Your task to perform on an android device: toggle wifi Image 0: 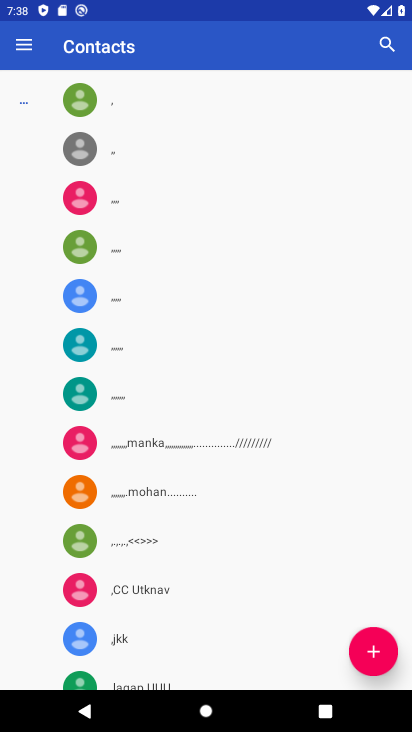
Step 0: press home button
Your task to perform on an android device: toggle wifi Image 1: 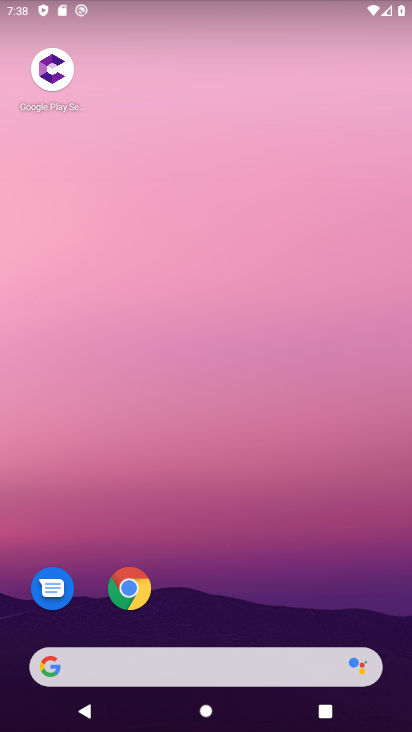
Step 1: drag from (311, 496) to (201, 138)
Your task to perform on an android device: toggle wifi Image 2: 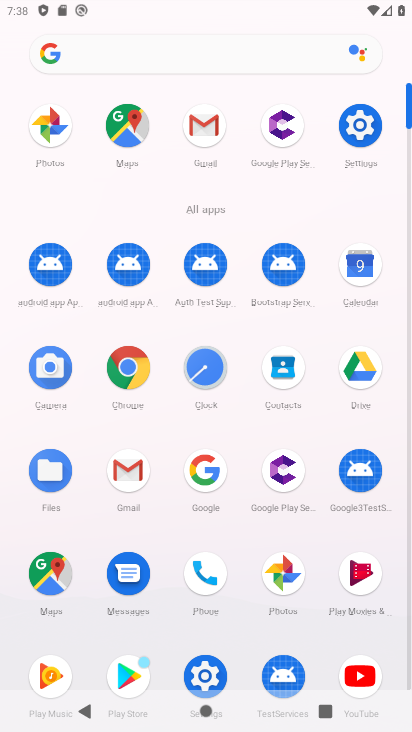
Step 2: click (345, 139)
Your task to perform on an android device: toggle wifi Image 3: 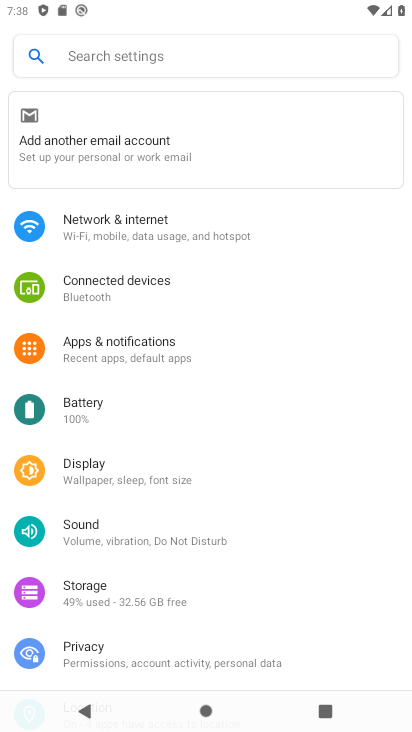
Step 3: click (244, 220)
Your task to perform on an android device: toggle wifi Image 4: 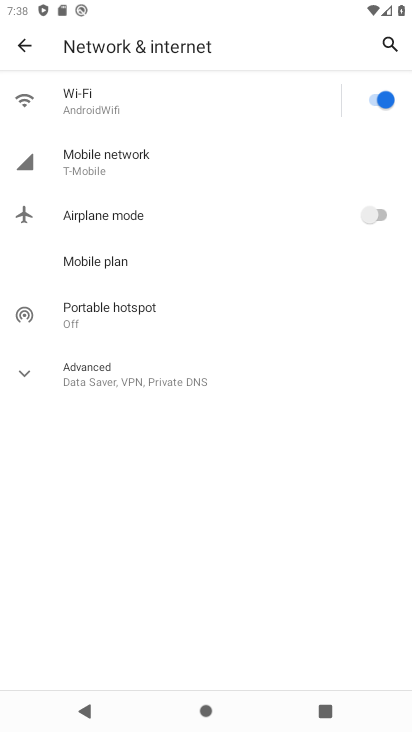
Step 4: click (394, 102)
Your task to perform on an android device: toggle wifi Image 5: 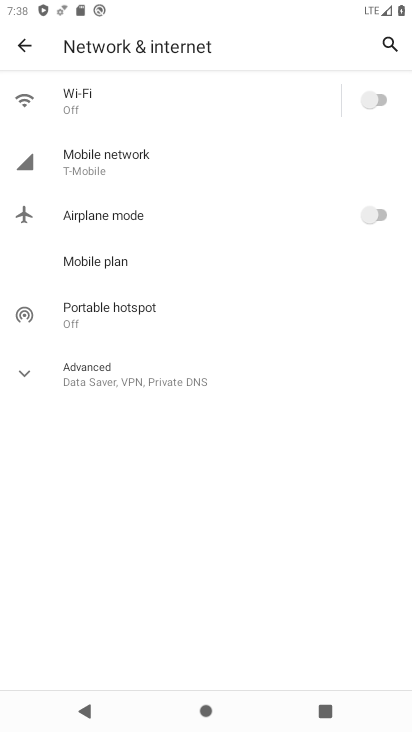
Step 5: task complete